Your task to perform on an android device: Search for Mexican restaurants on Maps Image 0: 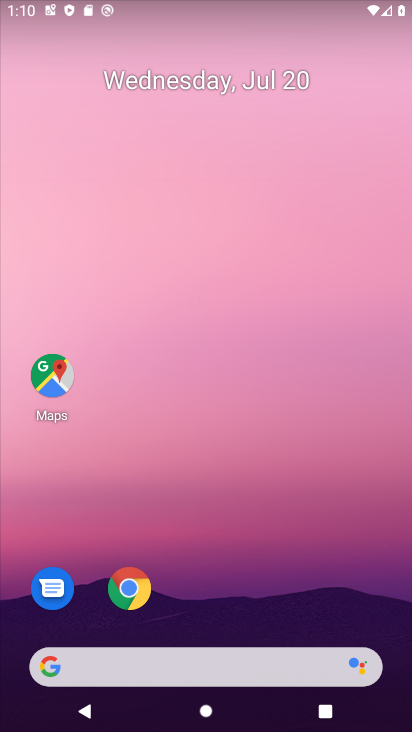
Step 0: drag from (364, 601) to (216, 149)
Your task to perform on an android device: Search for Mexican restaurants on Maps Image 1: 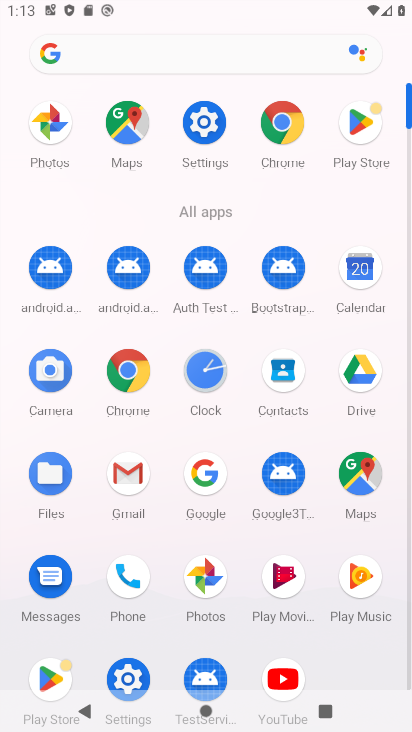
Step 1: click (361, 495)
Your task to perform on an android device: Search for Mexican restaurants on Maps Image 2: 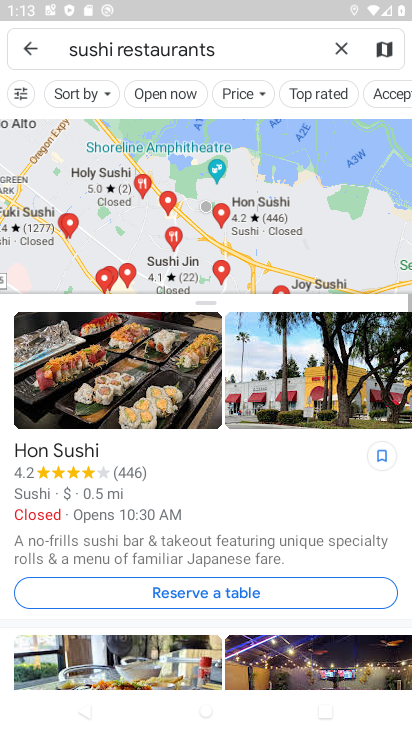
Step 2: click (345, 46)
Your task to perform on an android device: Search for Mexican restaurants on Maps Image 3: 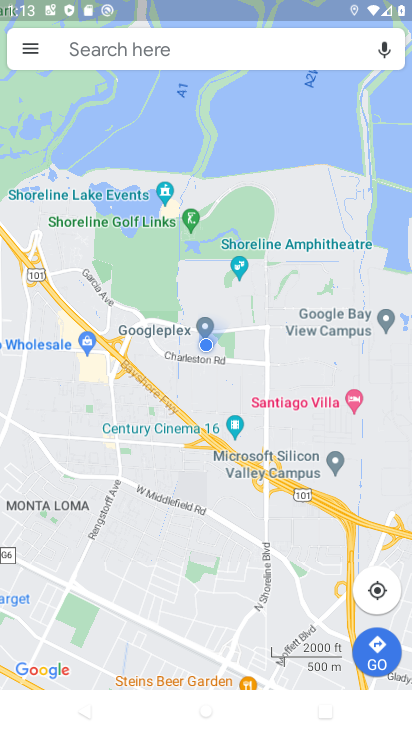
Step 3: click (200, 51)
Your task to perform on an android device: Search for Mexican restaurants on Maps Image 4: 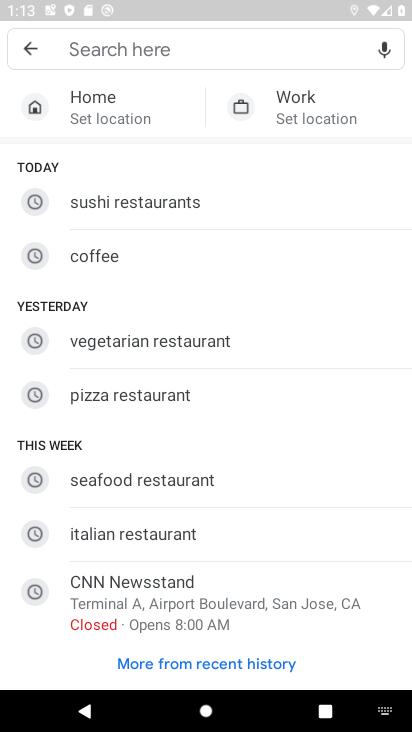
Step 4: type " Mexican restaurants"
Your task to perform on an android device: Search for Mexican restaurants on Maps Image 5: 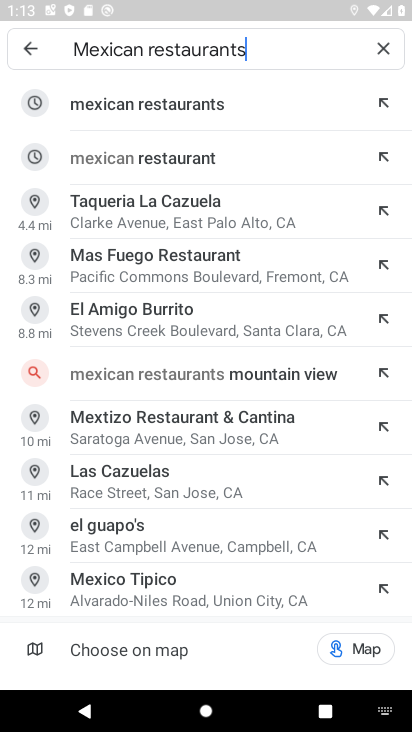
Step 5: click (141, 107)
Your task to perform on an android device: Search for Mexican restaurants on Maps Image 6: 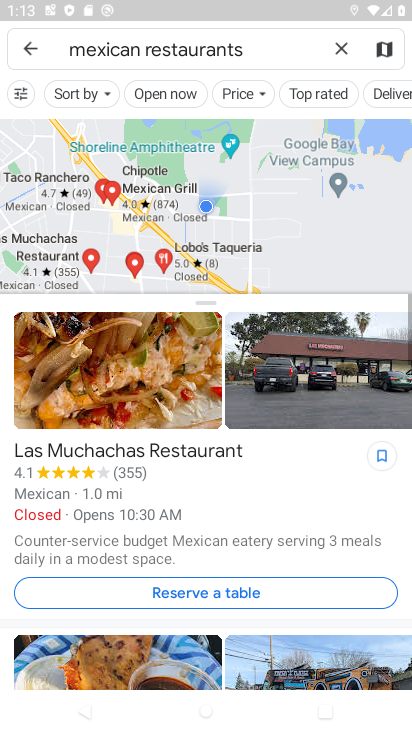
Step 6: task complete